Your task to perform on an android device: What is the news today? Image 0: 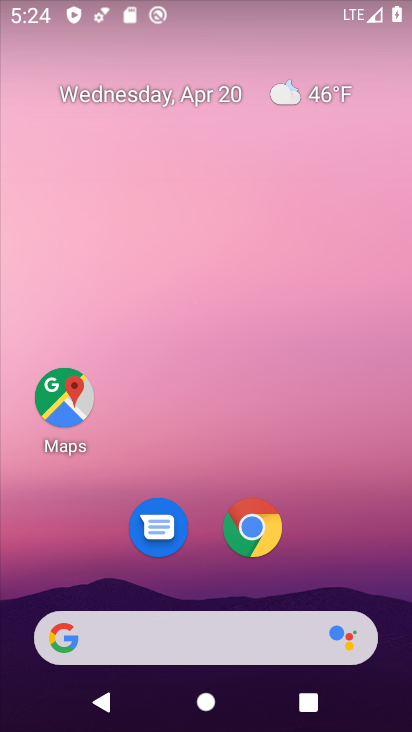
Step 0: drag from (206, 588) to (144, 33)
Your task to perform on an android device: What is the news today? Image 1: 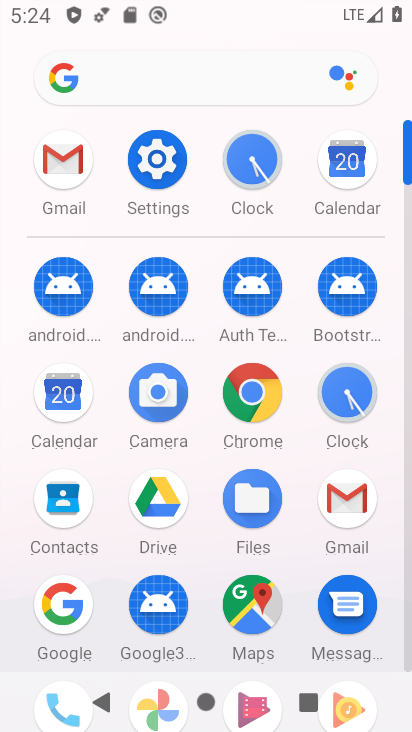
Step 1: click (56, 609)
Your task to perform on an android device: What is the news today? Image 2: 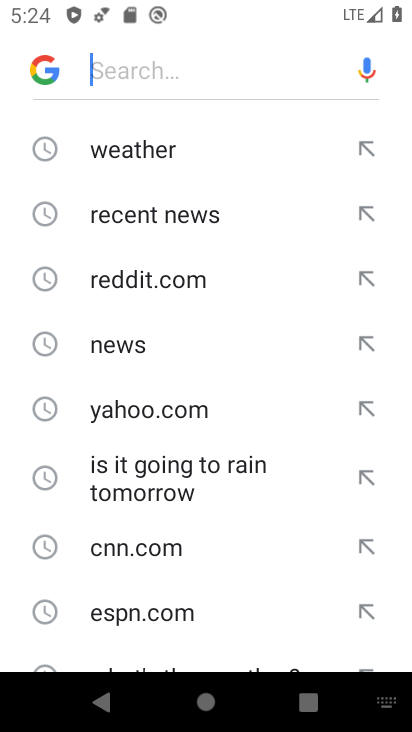
Step 2: type "what is the news today?"
Your task to perform on an android device: What is the news today? Image 3: 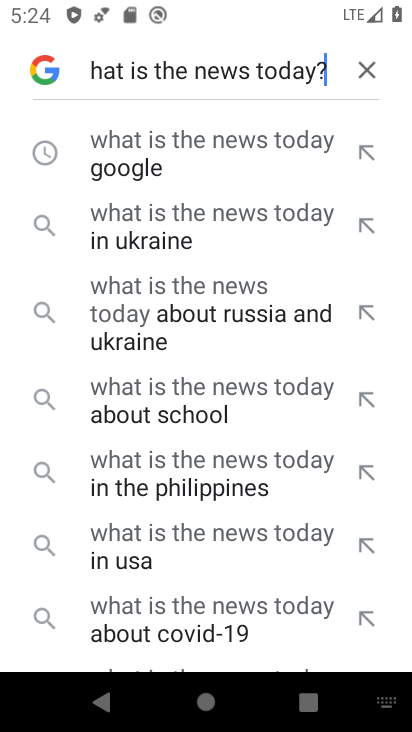
Step 3: click (244, 156)
Your task to perform on an android device: What is the news today? Image 4: 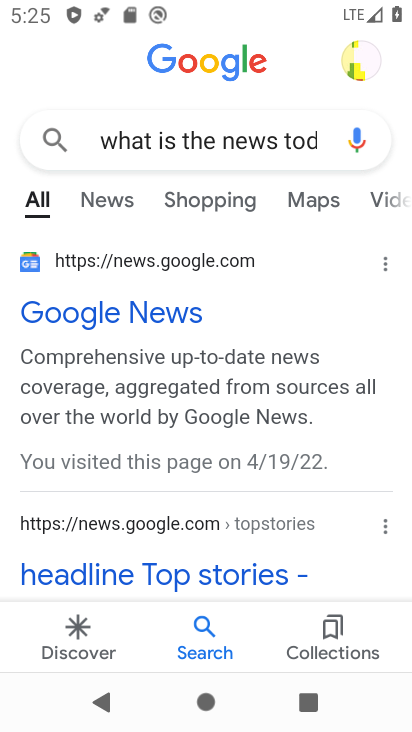
Step 4: click (88, 193)
Your task to perform on an android device: What is the news today? Image 5: 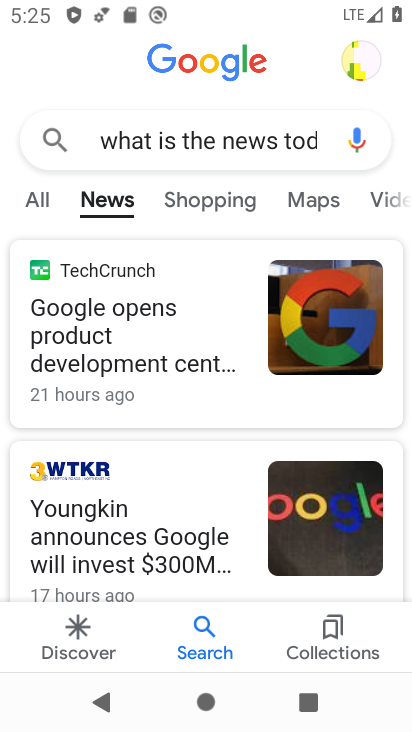
Step 5: task complete